Your task to perform on an android device: Open settings Image 0: 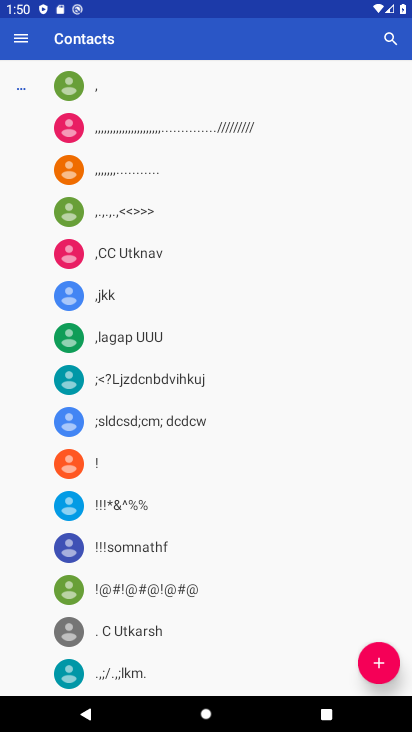
Step 0: press home button
Your task to perform on an android device: Open settings Image 1: 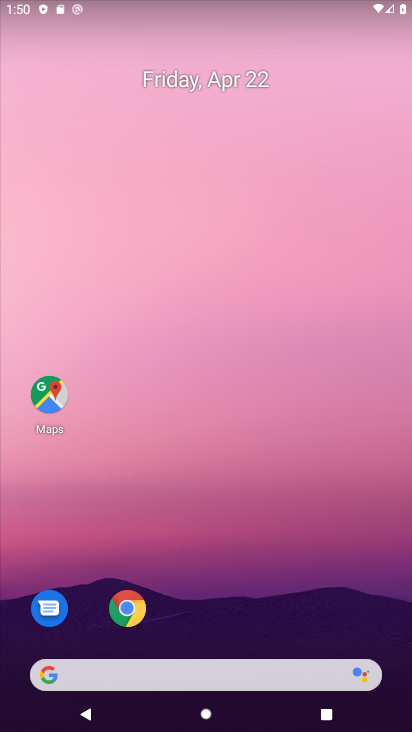
Step 1: drag from (266, 552) to (266, 125)
Your task to perform on an android device: Open settings Image 2: 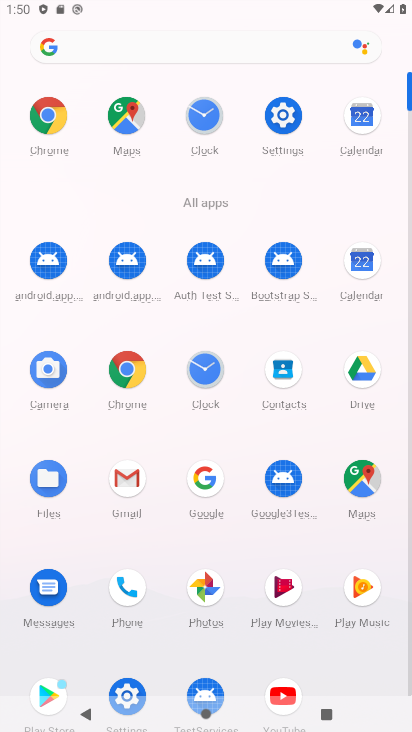
Step 2: click (283, 134)
Your task to perform on an android device: Open settings Image 3: 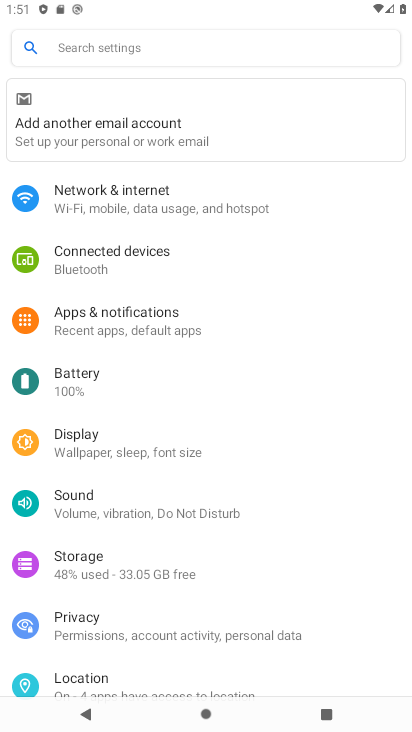
Step 3: task complete